Your task to perform on an android device: change timer sound Image 0: 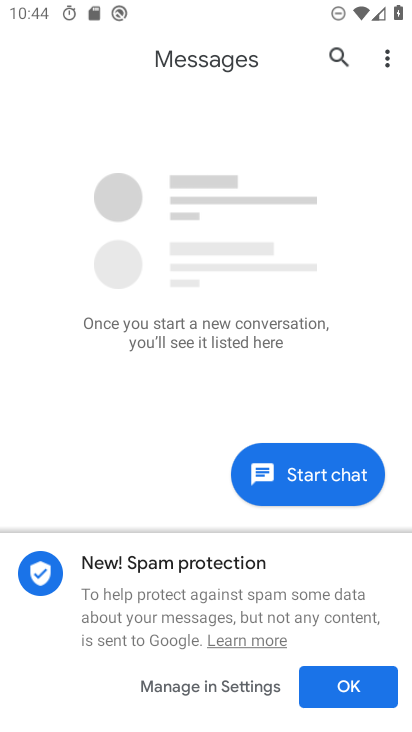
Step 0: press home button
Your task to perform on an android device: change timer sound Image 1: 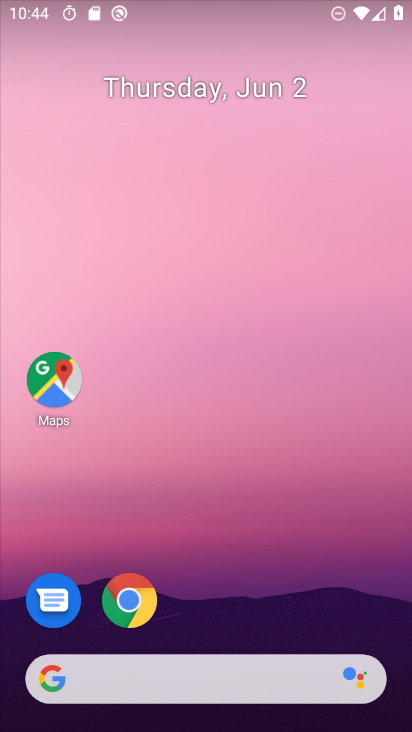
Step 1: drag from (251, 561) to (259, 59)
Your task to perform on an android device: change timer sound Image 2: 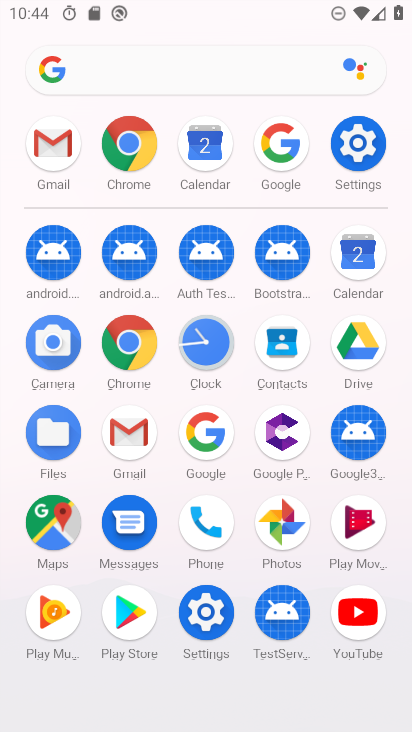
Step 2: click (204, 348)
Your task to perform on an android device: change timer sound Image 3: 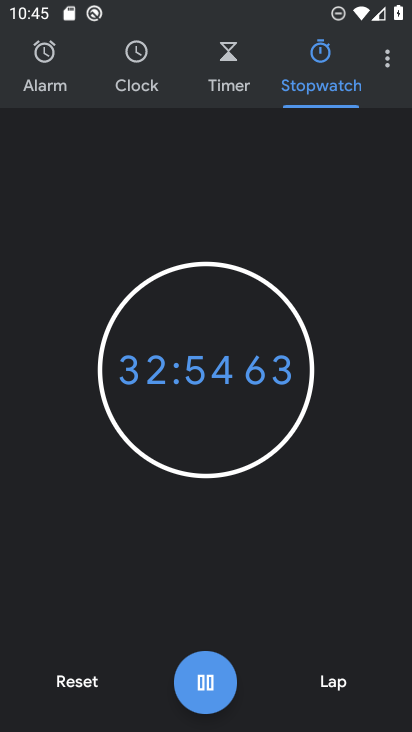
Step 3: click (381, 66)
Your task to perform on an android device: change timer sound Image 4: 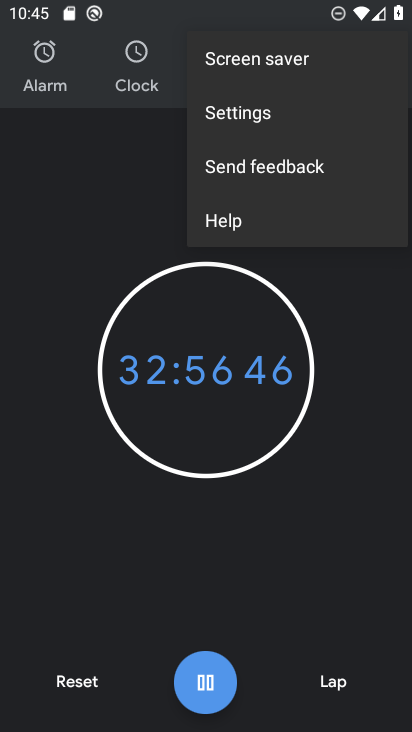
Step 4: click (268, 113)
Your task to perform on an android device: change timer sound Image 5: 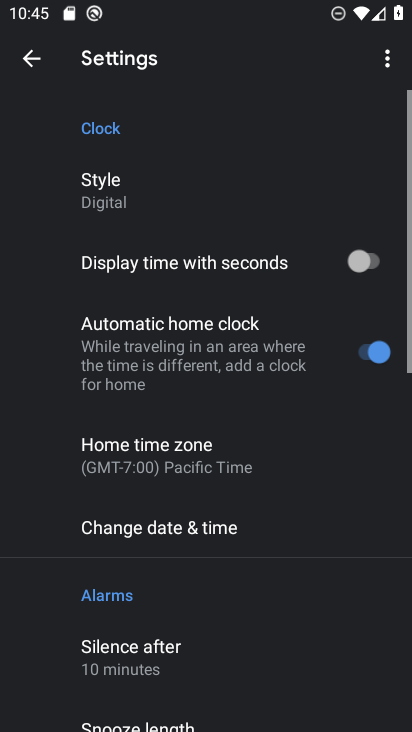
Step 5: drag from (262, 458) to (210, 161)
Your task to perform on an android device: change timer sound Image 6: 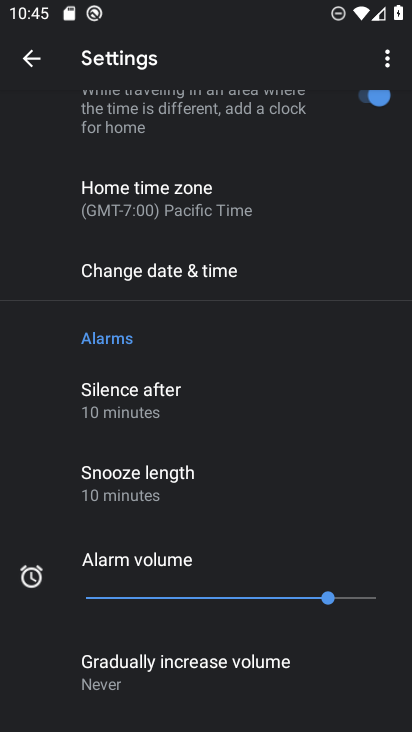
Step 6: drag from (181, 544) to (165, 171)
Your task to perform on an android device: change timer sound Image 7: 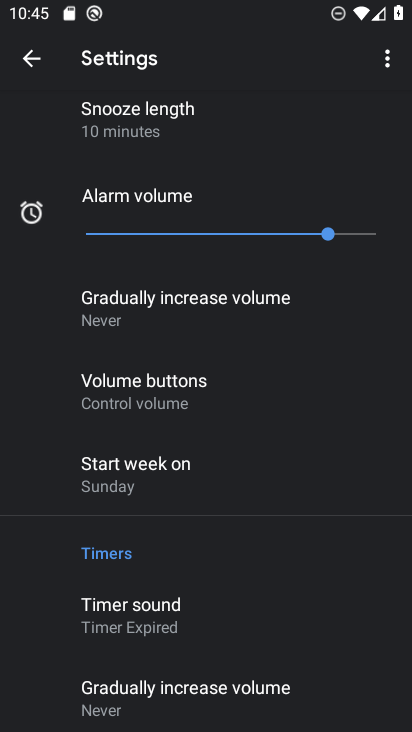
Step 7: click (160, 619)
Your task to perform on an android device: change timer sound Image 8: 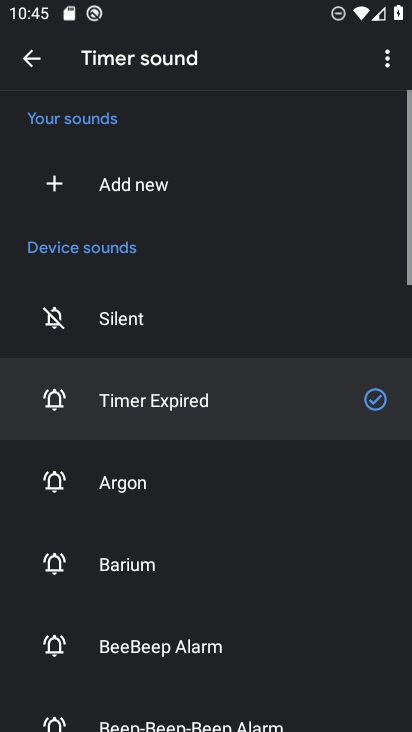
Step 8: click (196, 495)
Your task to perform on an android device: change timer sound Image 9: 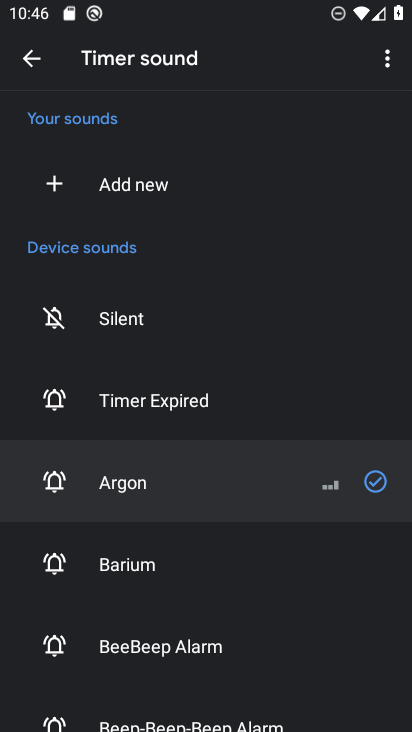
Step 9: task complete